Your task to perform on an android device: Toggle the flashlight Image 0: 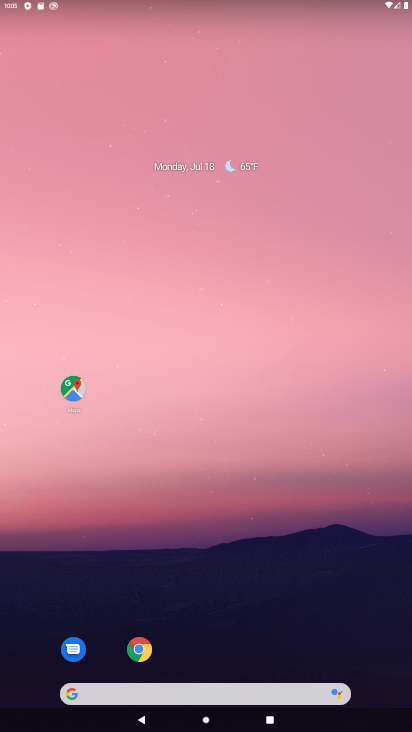
Step 0: drag from (307, 38) to (304, 672)
Your task to perform on an android device: Toggle the flashlight Image 1: 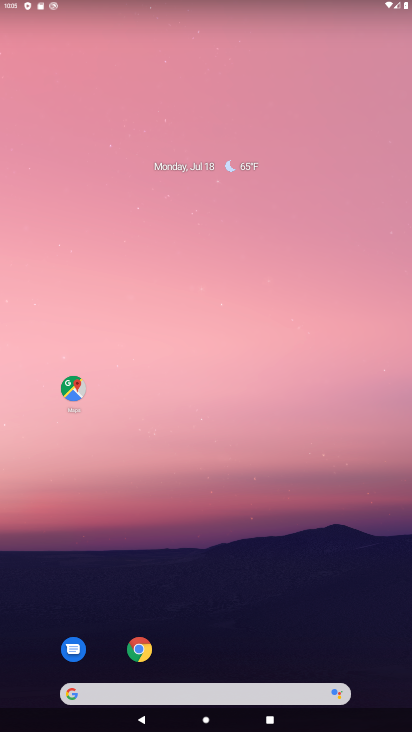
Step 1: task complete